Your task to perform on an android device: Show the shopping cart on amazon.com. Search for logitech g pro on amazon.com, select the first entry, and add it to the cart. Image 0: 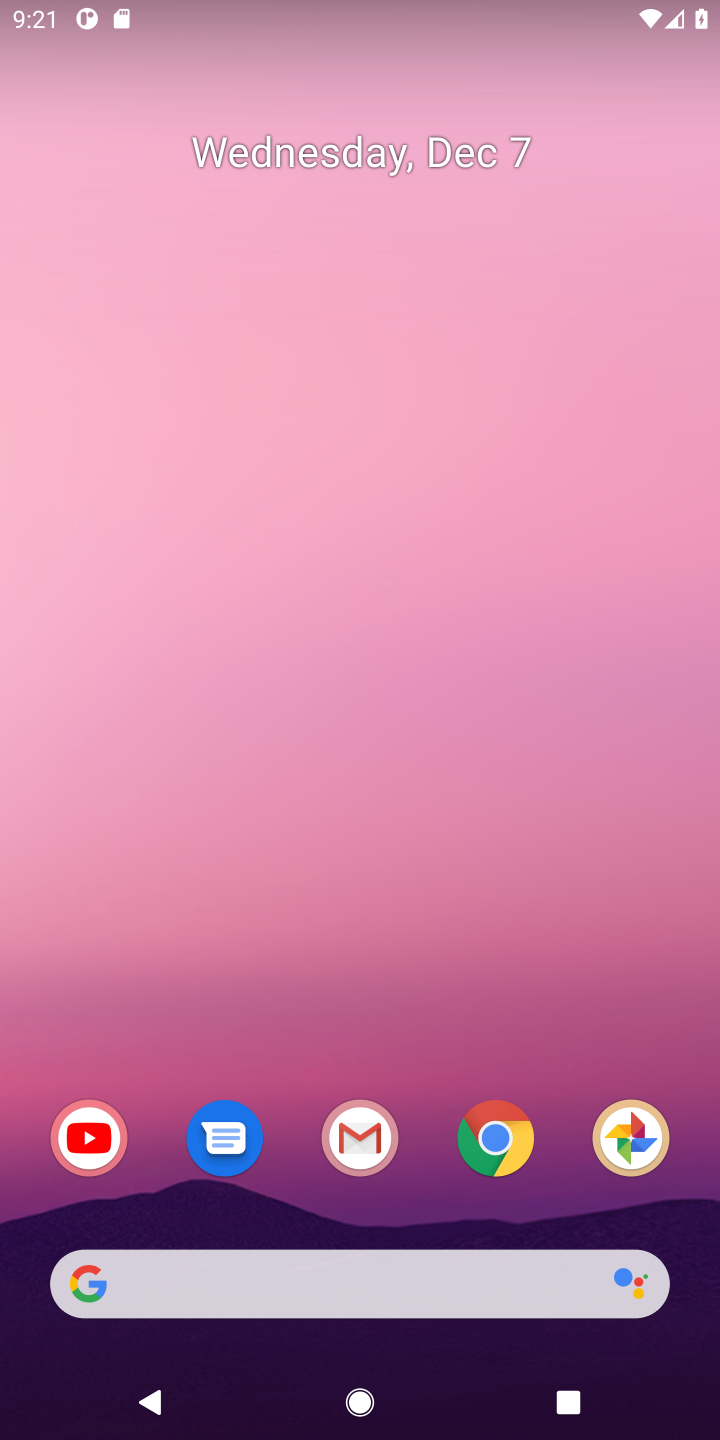
Step 0: press home button
Your task to perform on an android device: Show the shopping cart on amazon.com. Search for logitech g pro on amazon.com, select the first entry, and add it to the cart. Image 1: 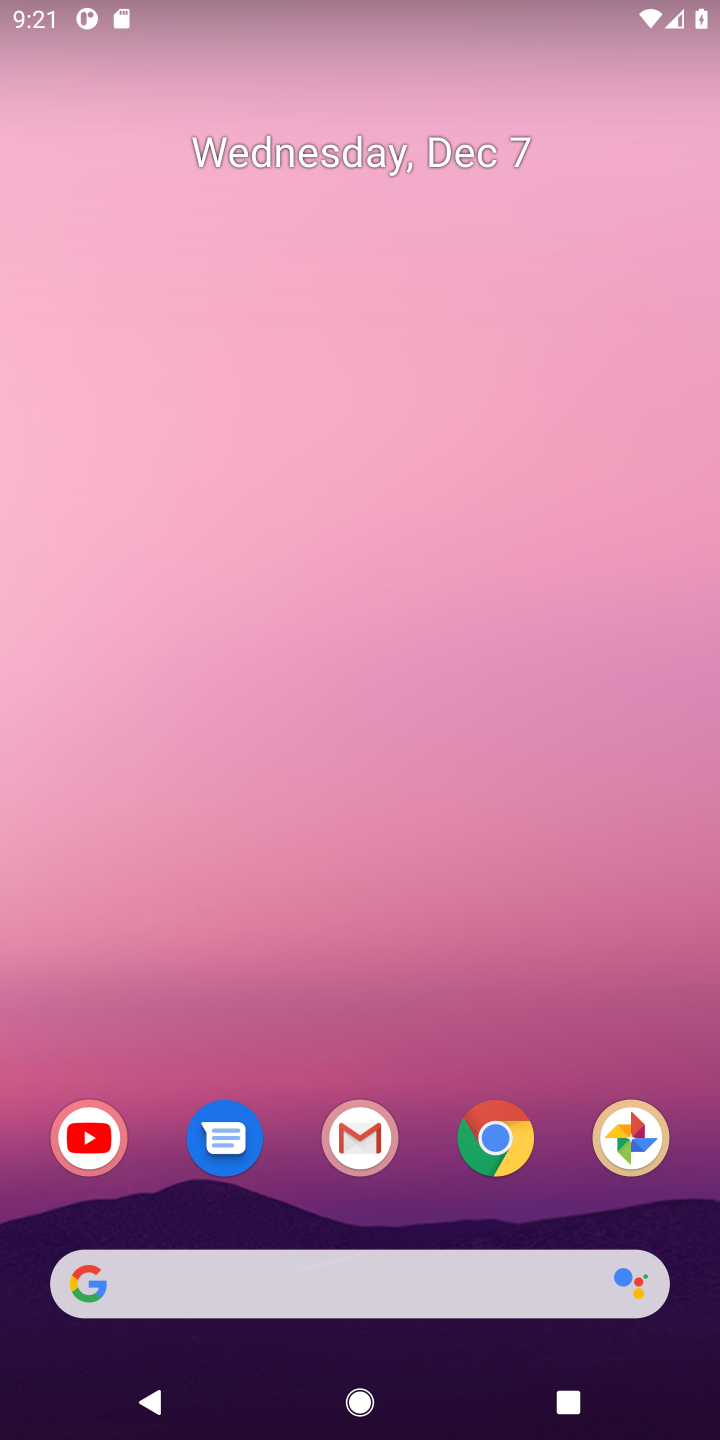
Step 1: click (129, 1284)
Your task to perform on an android device: Show the shopping cart on amazon.com. Search for logitech g pro on amazon.com, select the first entry, and add it to the cart. Image 2: 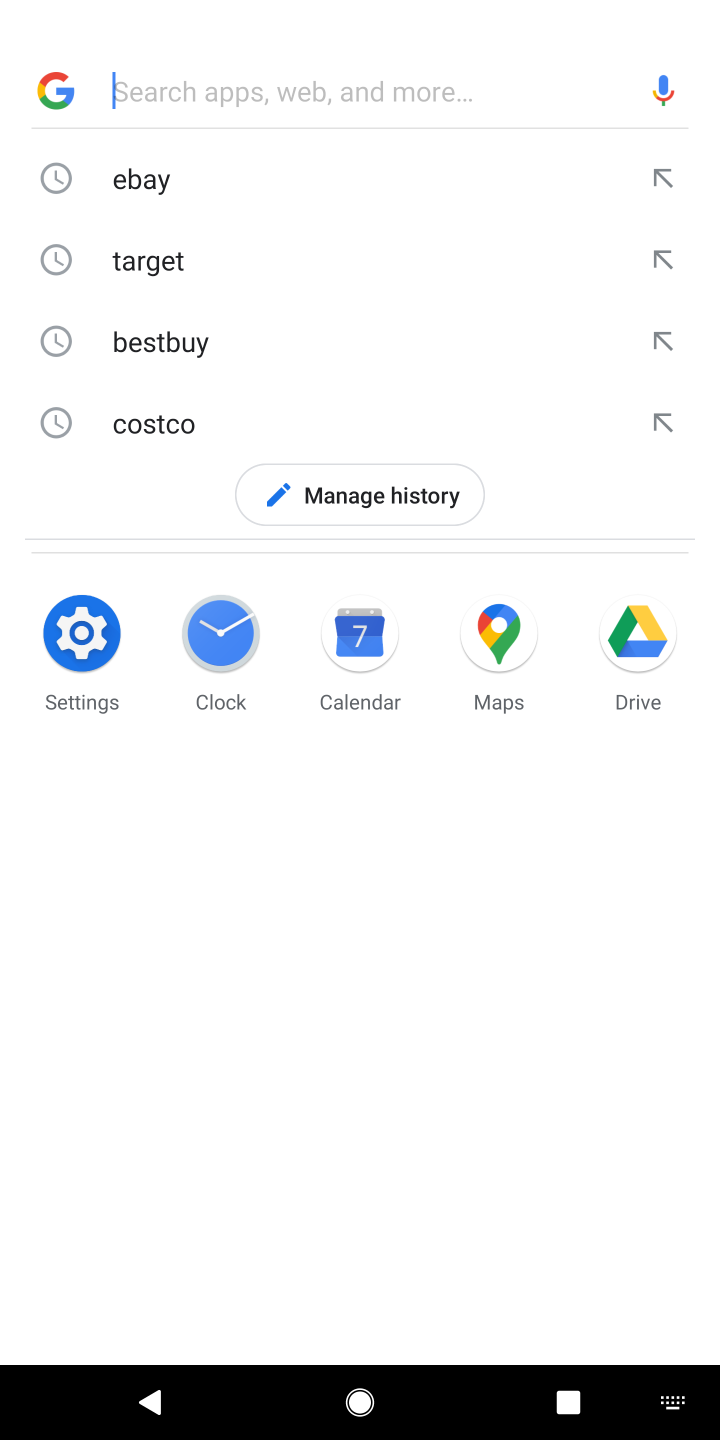
Step 2: press enter
Your task to perform on an android device: Show the shopping cart on amazon.com. Search for logitech g pro on amazon.com, select the first entry, and add it to the cart. Image 3: 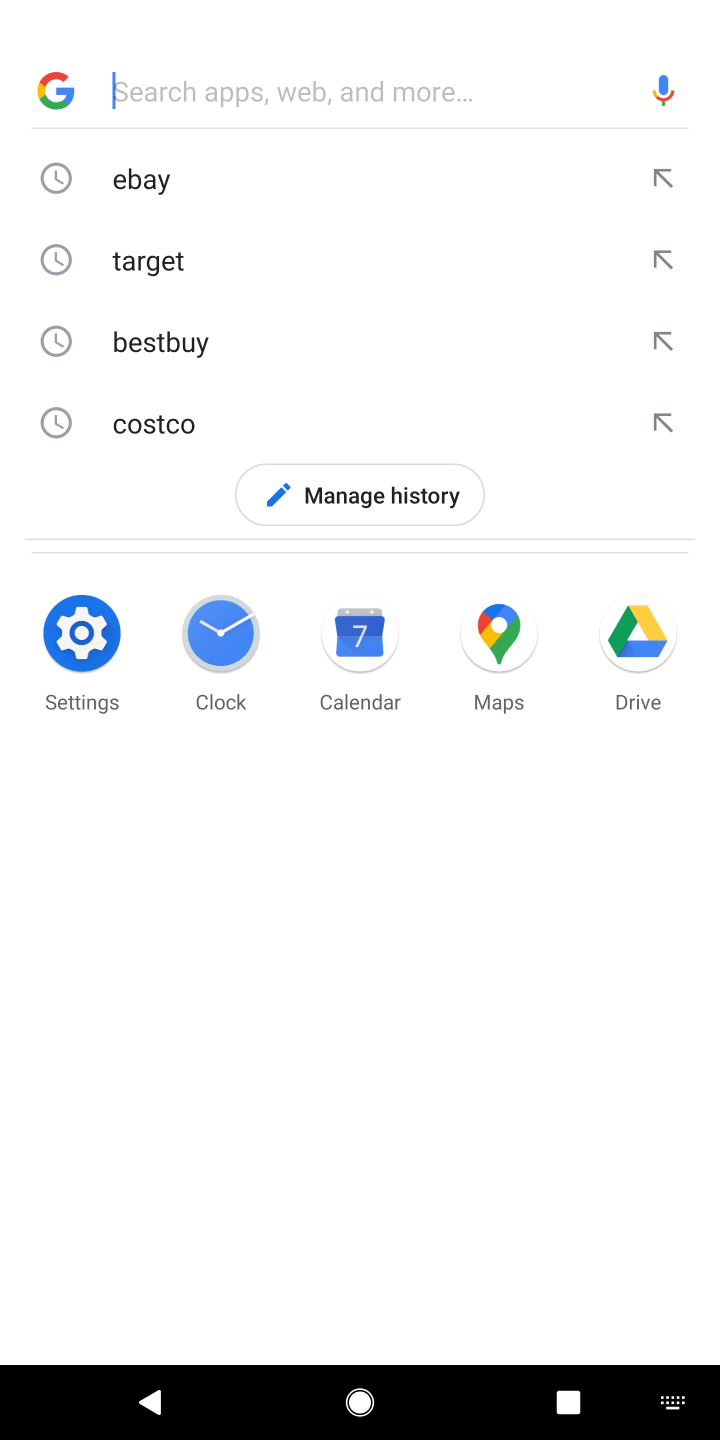
Step 3: type "amazon.com"
Your task to perform on an android device: Show the shopping cart on amazon.com. Search for logitech g pro on amazon.com, select the first entry, and add it to the cart. Image 4: 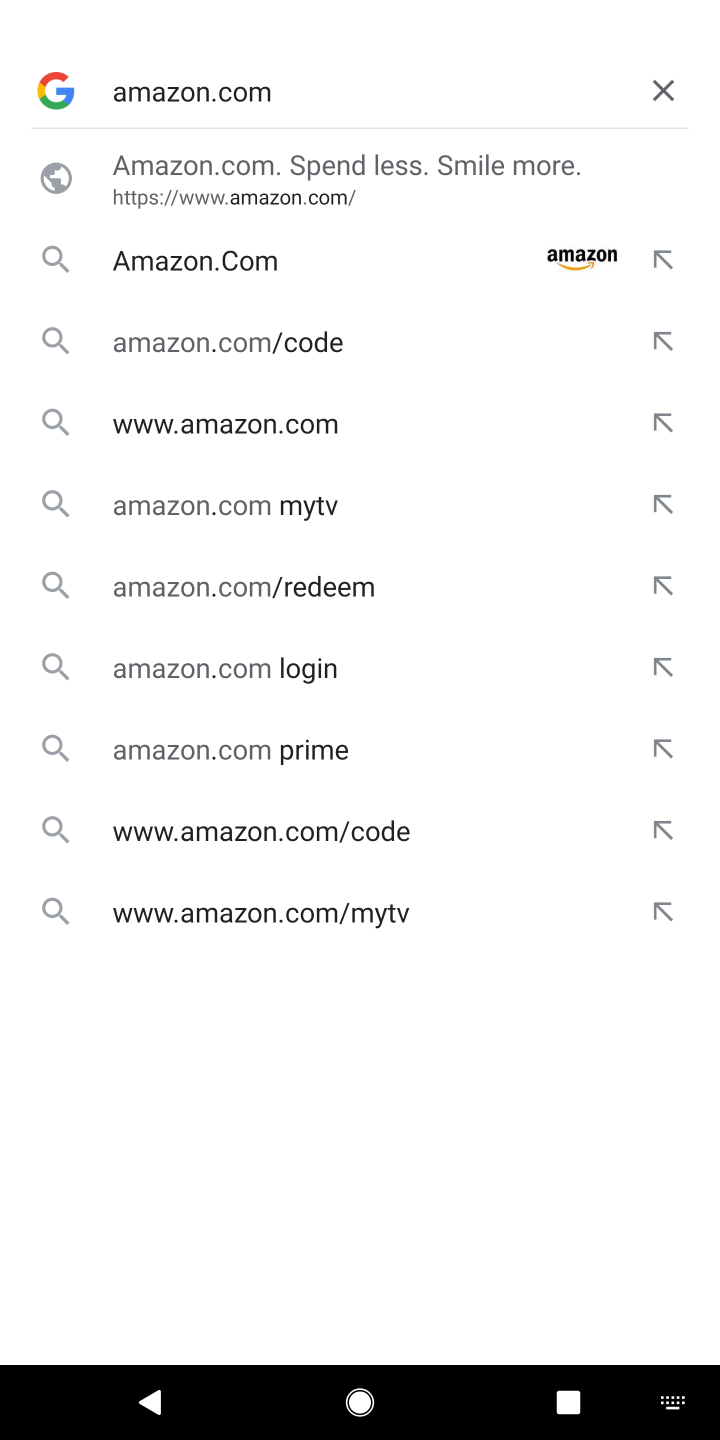
Step 4: press enter
Your task to perform on an android device: Show the shopping cart on amazon.com. Search for logitech g pro on amazon.com, select the first entry, and add it to the cart. Image 5: 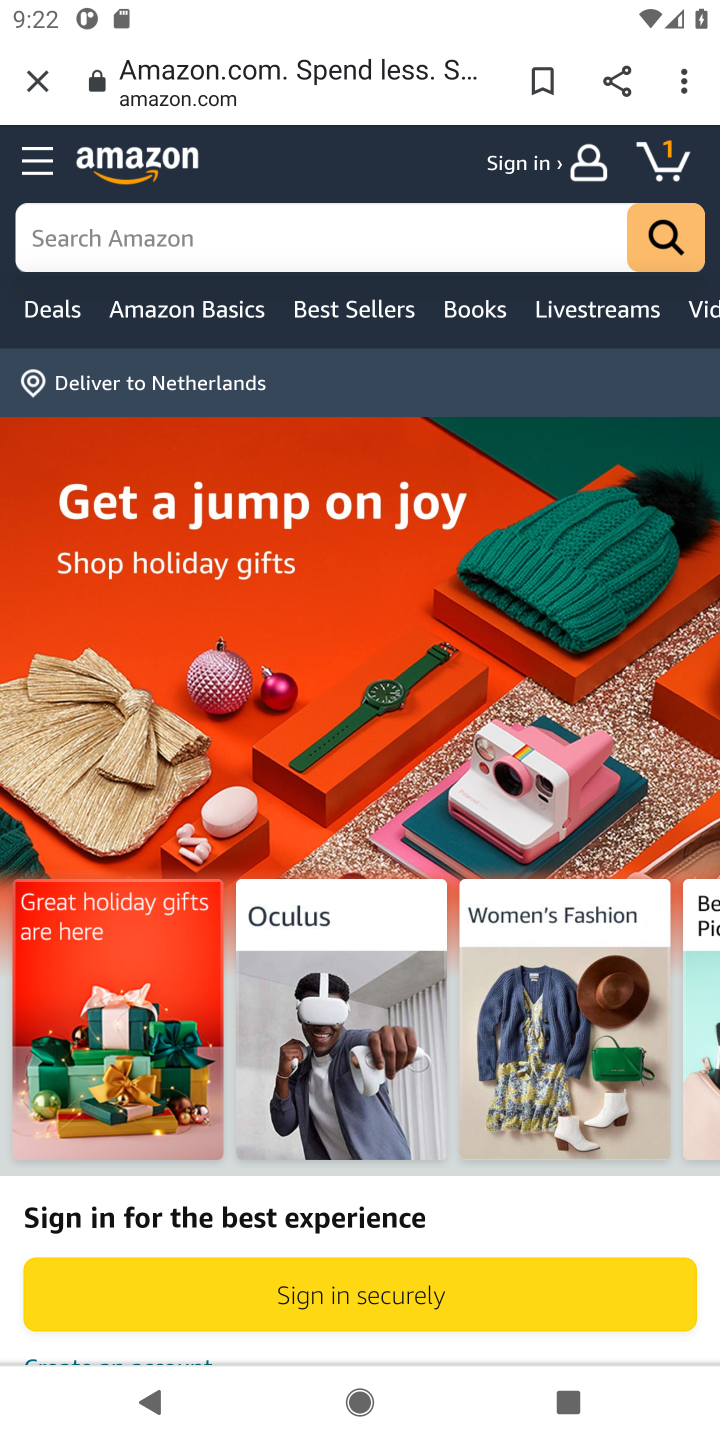
Step 5: click (656, 152)
Your task to perform on an android device: Show the shopping cart on amazon.com. Search for logitech g pro on amazon.com, select the first entry, and add it to the cart. Image 6: 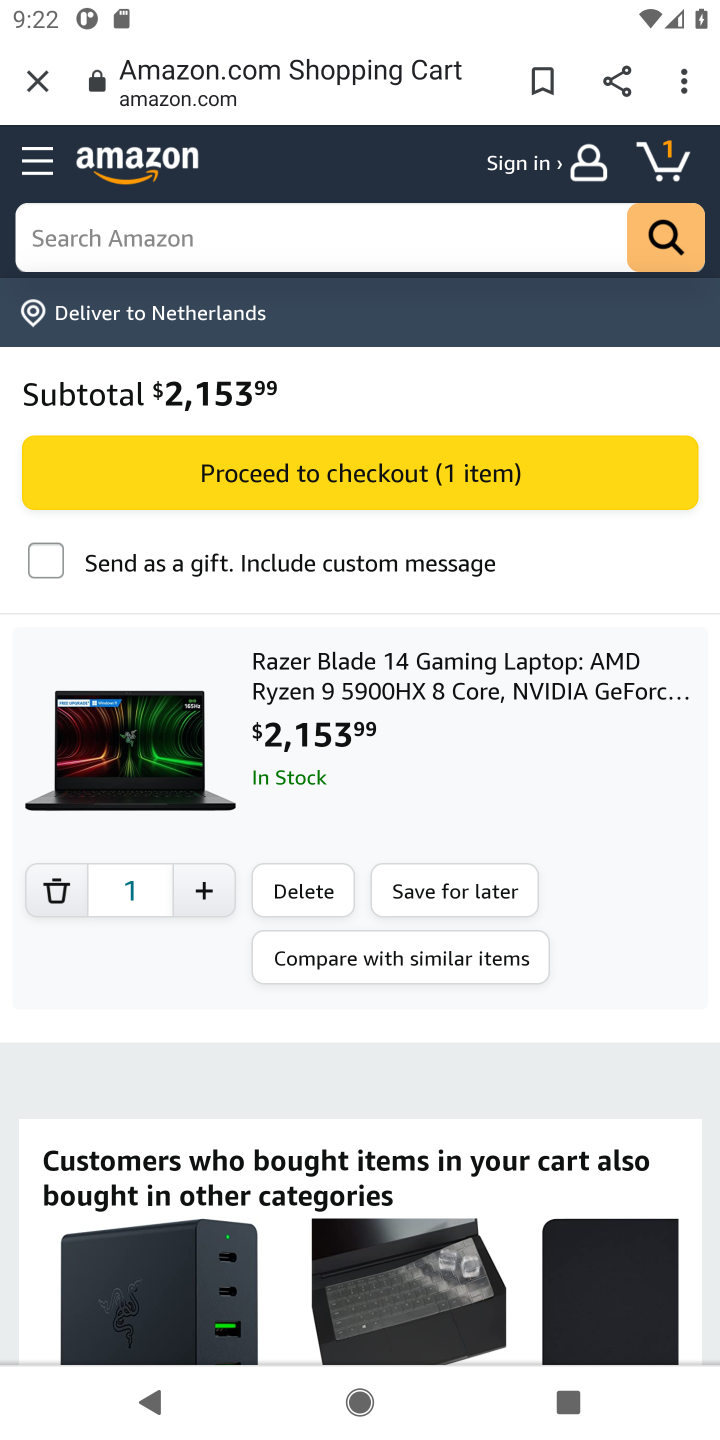
Step 6: click (47, 239)
Your task to perform on an android device: Show the shopping cart on amazon.com. Search for logitech g pro on amazon.com, select the first entry, and add it to the cart. Image 7: 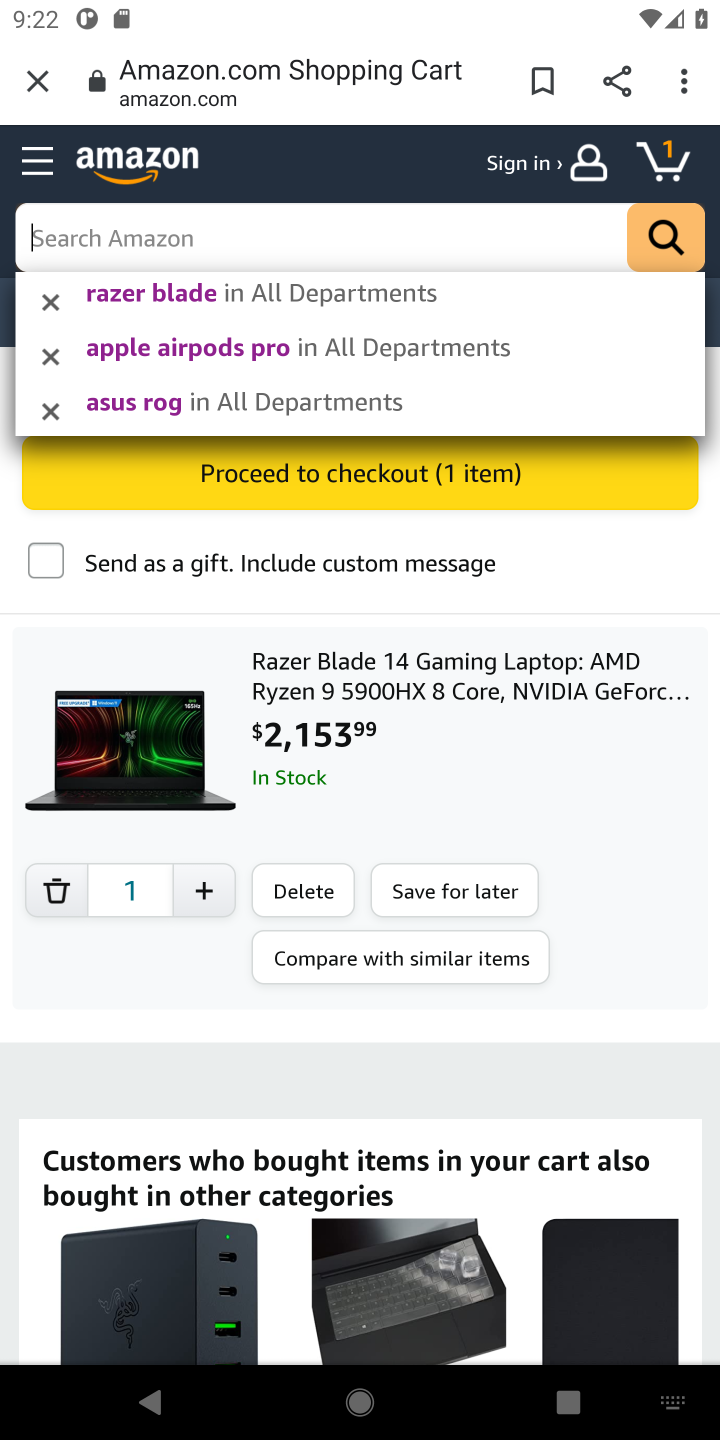
Step 7: type "logitech g pro"
Your task to perform on an android device: Show the shopping cart on amazon.com. Search for logitech g pro on amazon.com, select the first entry, and add it to the cart. Image 8: 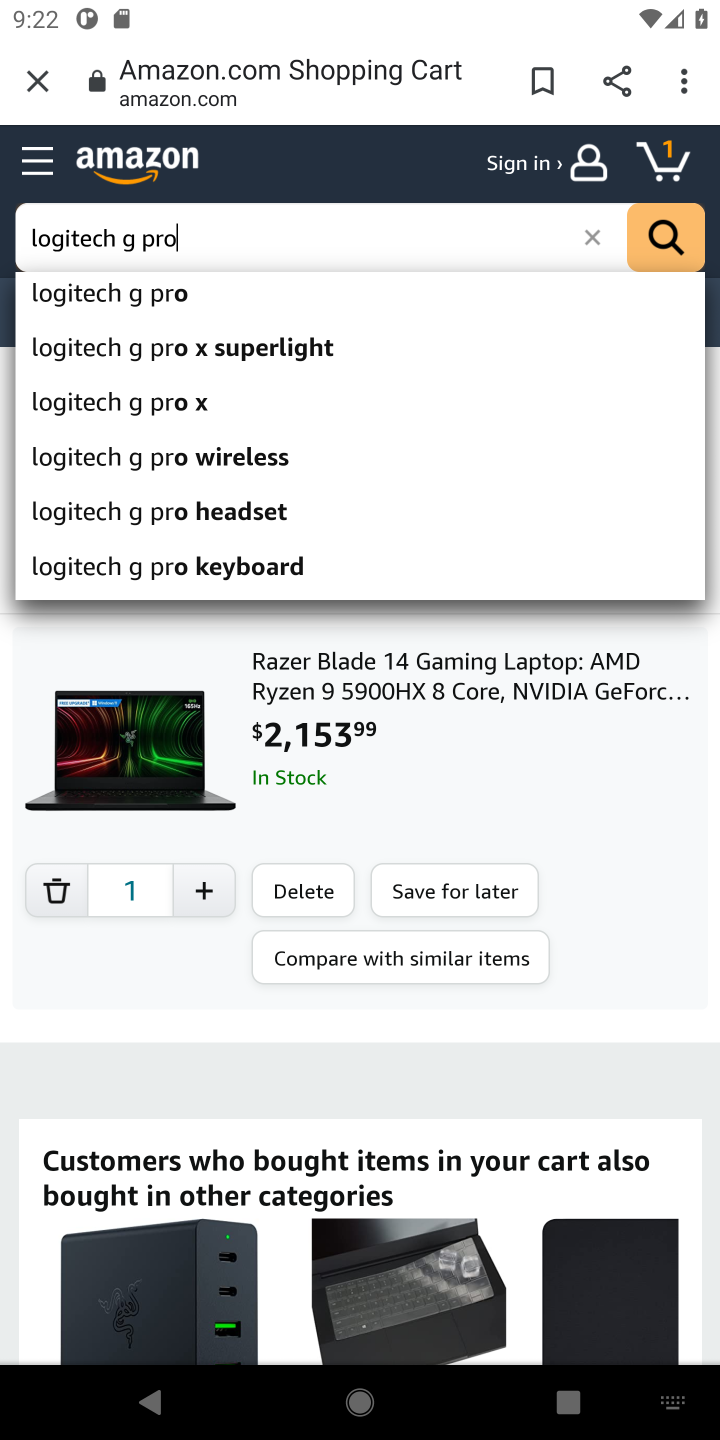
Step 8: press enter
Your task to perform on an android device: Show the shopping cart on amazon.com. Search for logitech g pro on amazon.com, select the first entry, and add it to the cart. Image 9: 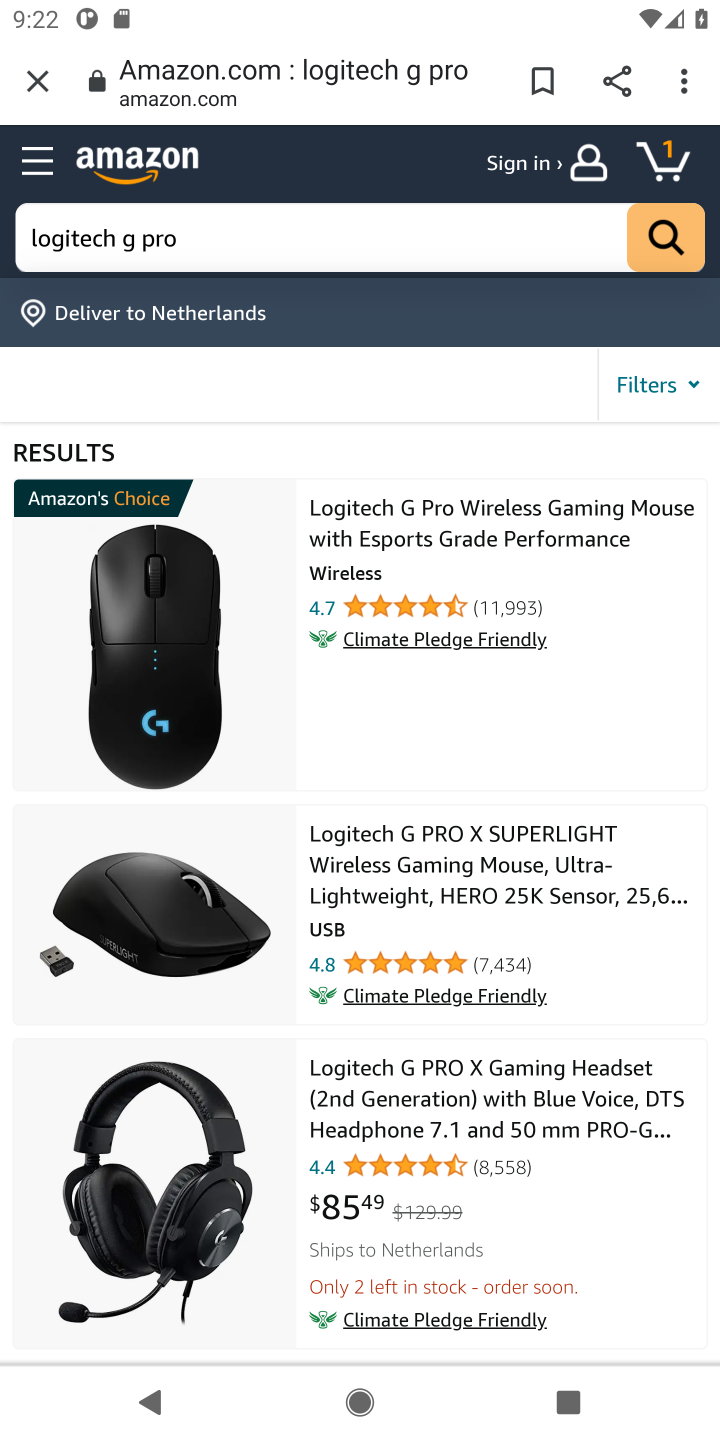
Step 9: click (454, 506)
Your task to perform on an android device: Show the shopping cart on amazon.com. Search for logitech g pro on amazon.com, select the first entry, and add it to the cart. Image 10: 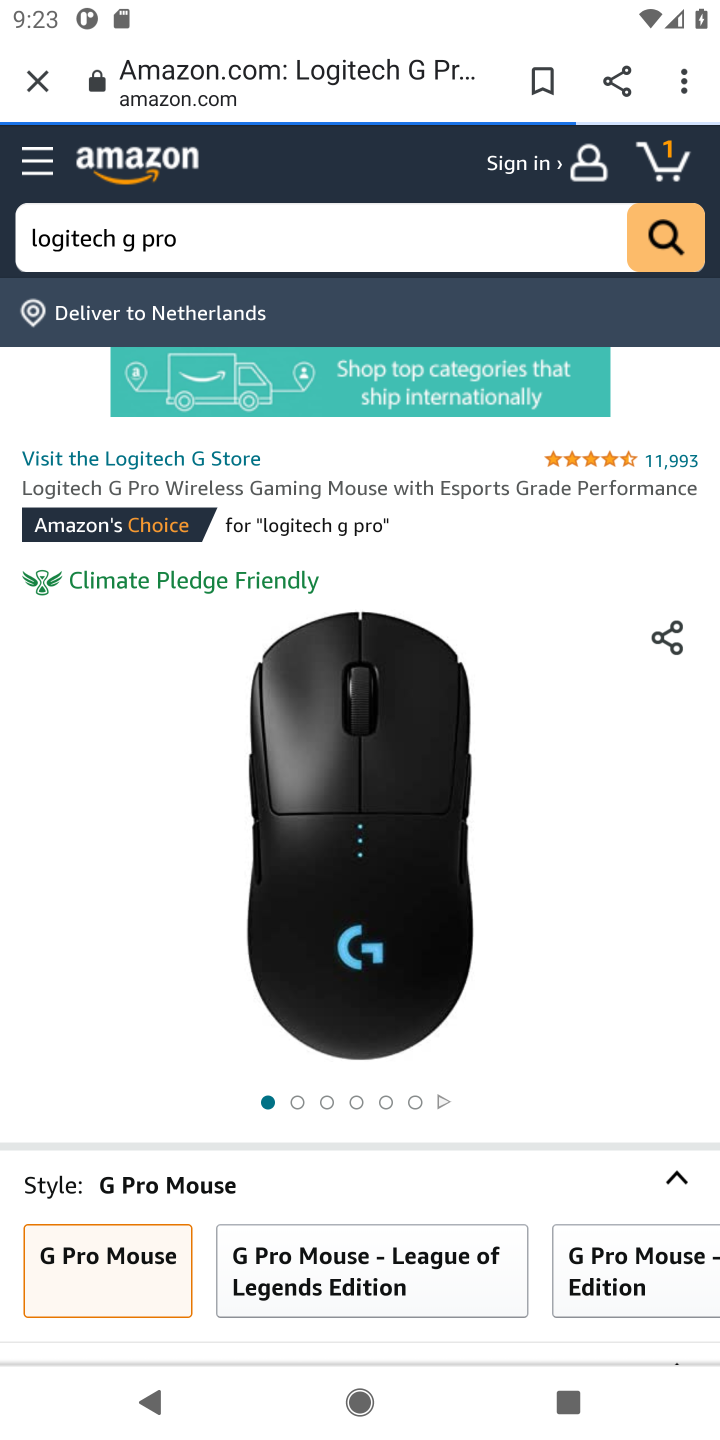
Step 10: task complete